Your task to perform on an android device: Search for vegetarian restaurants on Maps Image 0: 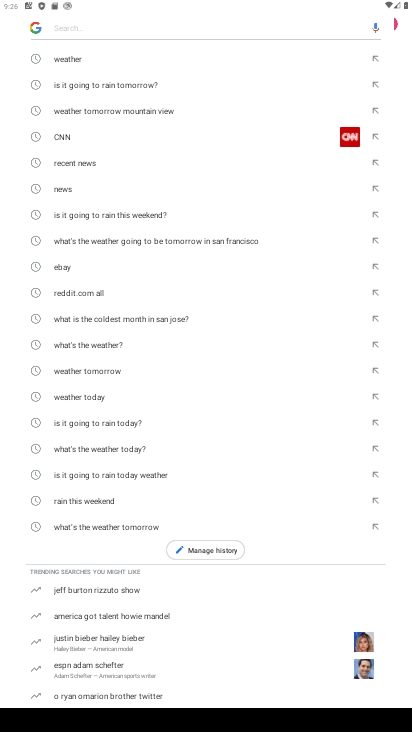
Step 0: press home button
Your task to perform on an android device: Search for vegetarian restaurants on Maps Image 1: 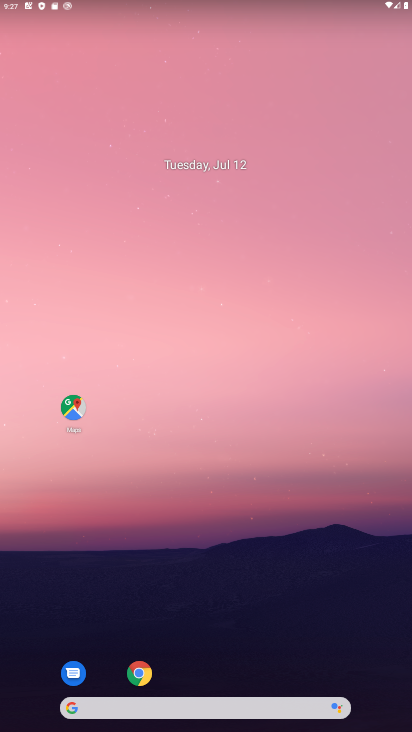
Step 1: drag from (212, 680) to (117, 45)
Your task to perform on an android device: Search for vegetarian restaurants on Maps Image 2: 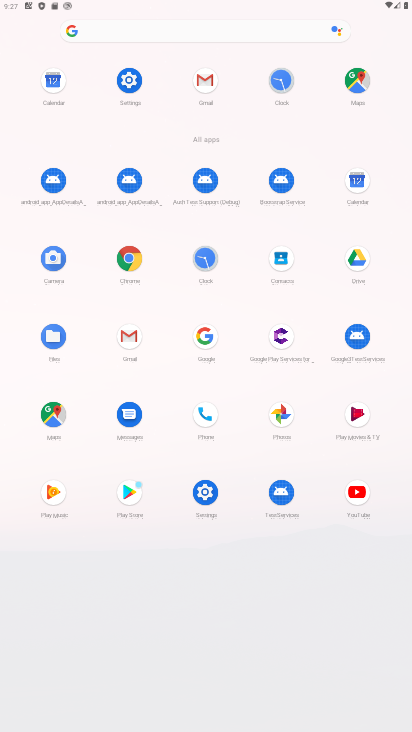
Step 2: click (352, 76)
Your task to perform on an android device: Search for vegetarian restaurants on Maps Image 3: 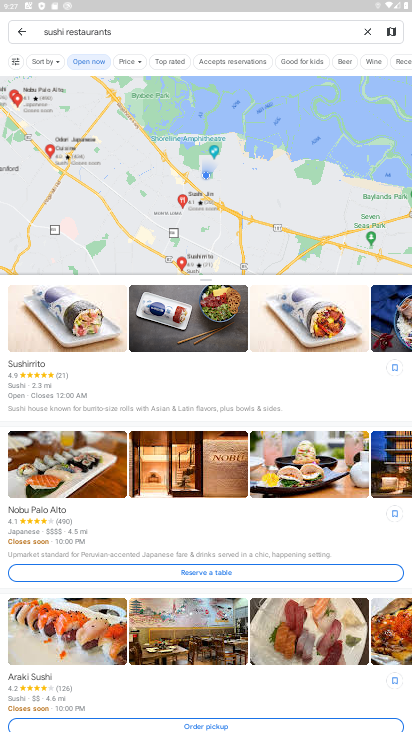
Step 3: click (19, 32)
Your task to perform on an android device: Search for vegetarian restaurants on Maps Image 4: 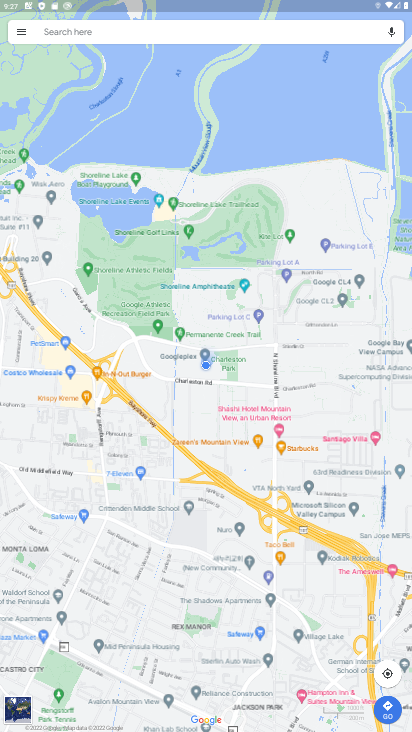
Step 4: click (125, 32)
Your task to perform on an android device: Search for vegetarian restaurants on Maps Image 5: 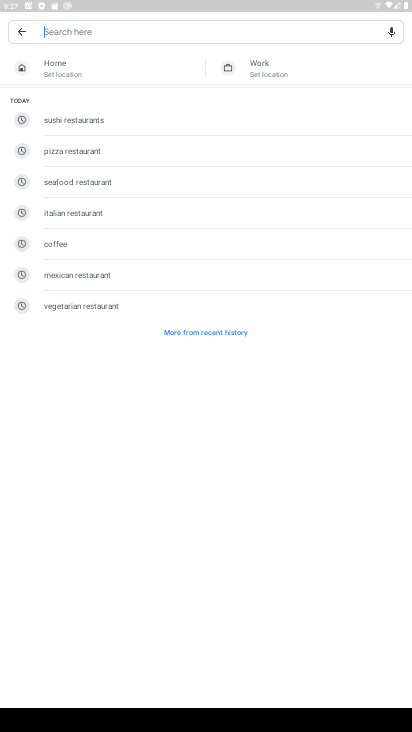
Step 5: click (95, 307)
Your task to perform on an android device: Search for vegetarian restaurants on Maps Image 6: 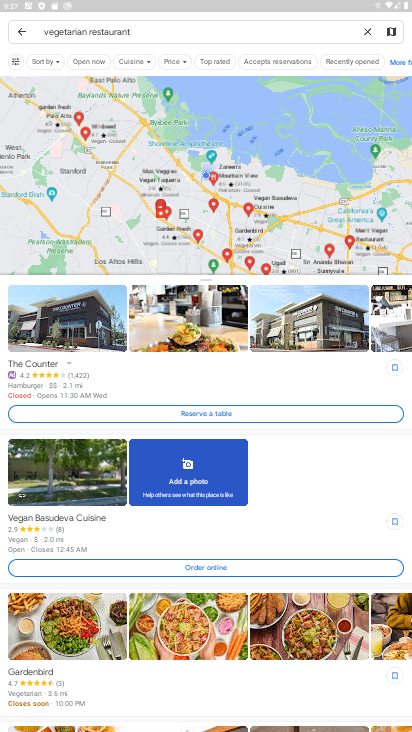
Step 6: task complete